Your task to perform on an android device: change the clock display to show seconds Image 0: 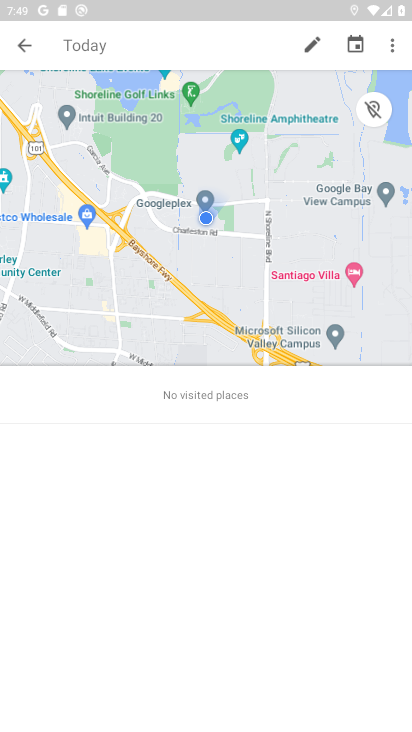
Step 0: press home button
Your task to perform on an android device: change the clock display to show seconds Image 1: 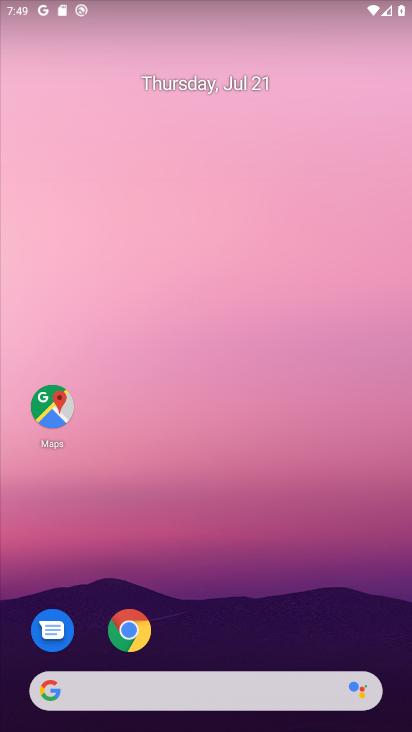
Step 1: drag from (201, 641) to (159, 1)
Your task to perform on an android device: change the clock display to show seconds Image 2: 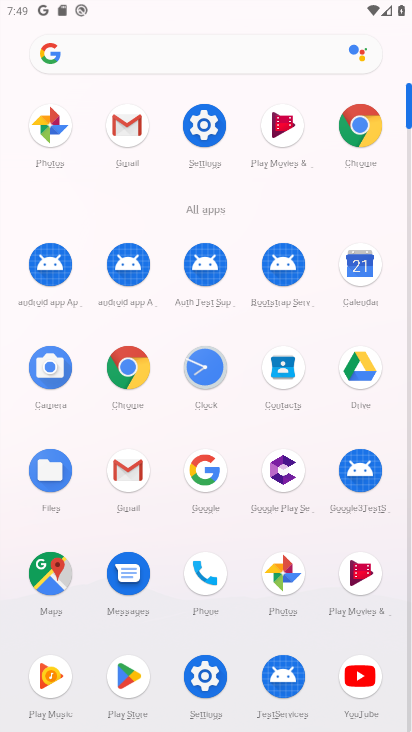
Step 2: click (202, 360)
Your task to perform on an android device: change the clock display to show seconds Image 3: 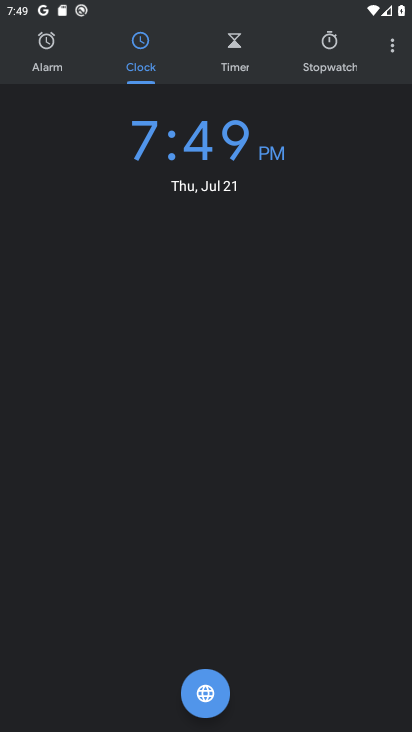
Step 3: click (398, 49)
Your task to perform on an android device: change the clock display to show seconds Image 4: 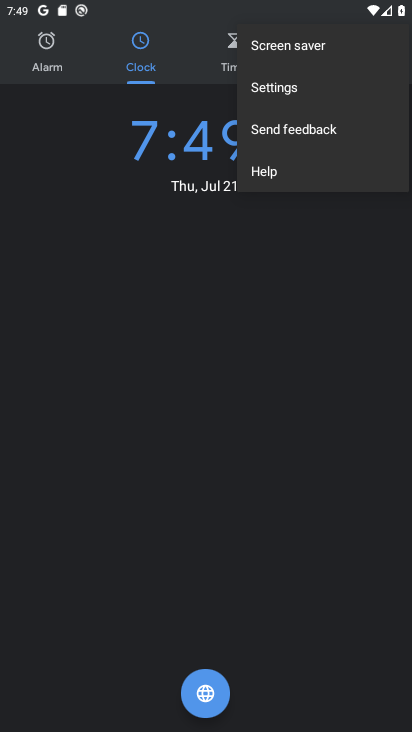
Step 4: click (291, 81)
Your task to perform on an android device: change the clock display to show seconds Image 5: 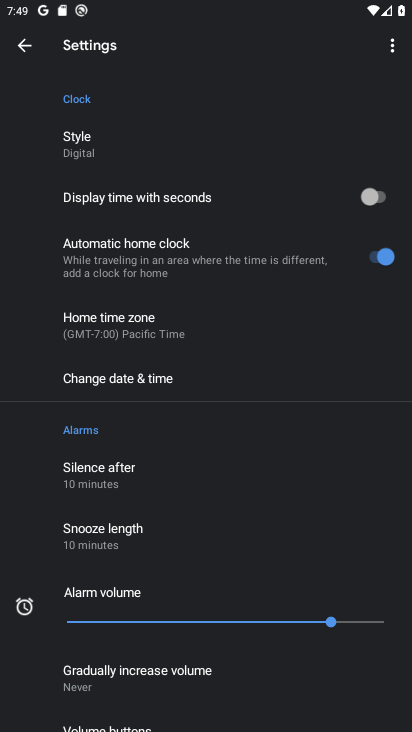
Step 5: click (370, 200)
Your task to perform on an android device: change the clock display to show seconds Image 6: 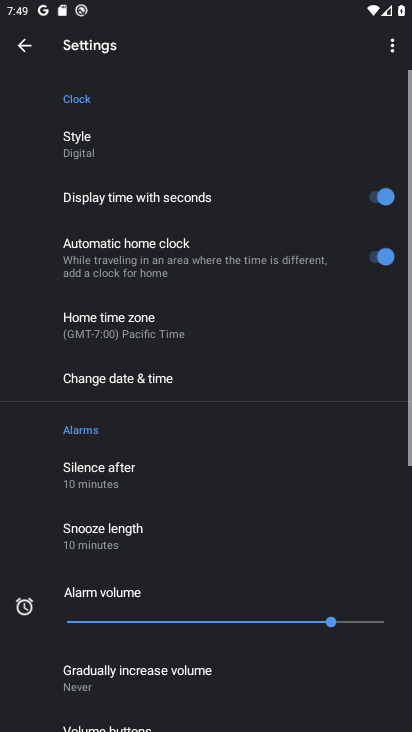
Step 6: task complete